Your task to perform on an android device: manage bookmarks in the chrome app Image 0: 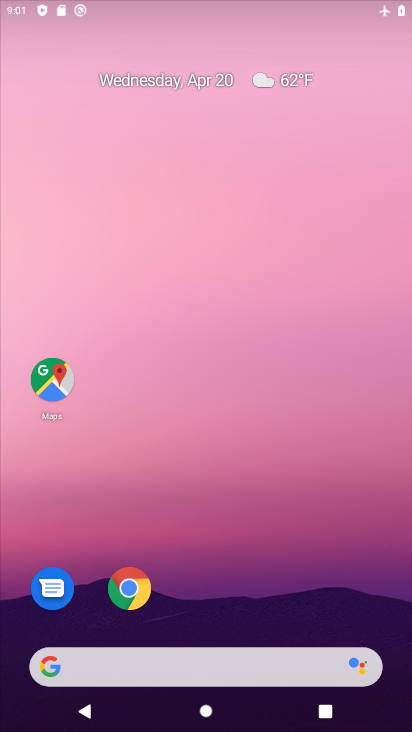
Step 0: drag from (248, 440) to (161, 8)
Your task to perform on an android device: manage bookmarks in the chrome app Image 1: 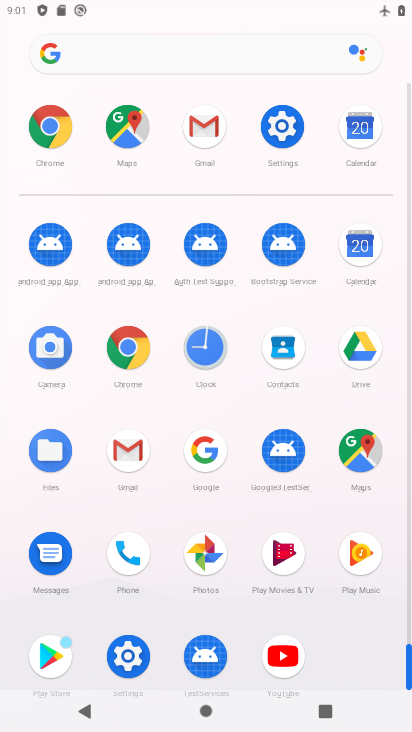
Step 1: click (125, 347)
Your task to perform on an android device: manage bookmarks in the chrome app Image 2: 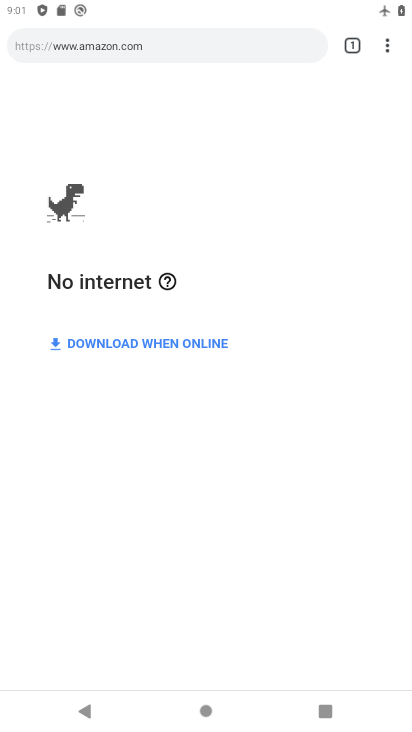
Step 2: drag from (388, 43) to (239, 176)
Your task to perform on an android device: manage bookmarks in the chrome app Image 3: 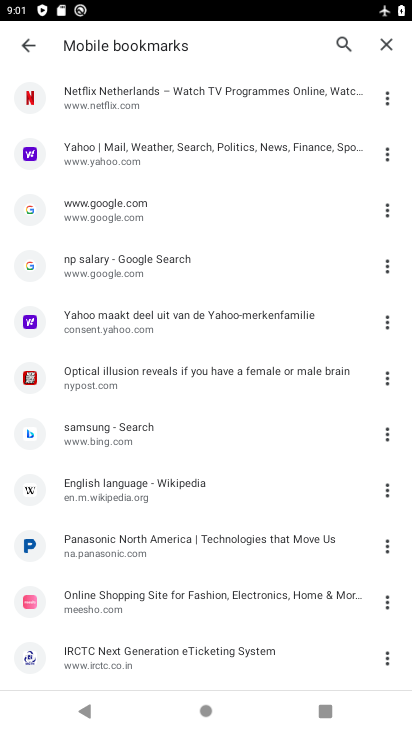
Step 3: click (122, 369)
Your task to perform on an android device: manage bookmarks in the chrome app Image 4: 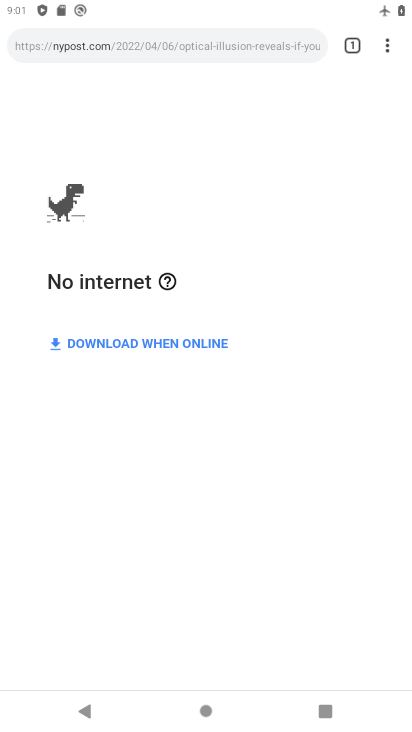
Step 4: task complete